Your task to perform on an android device: Go to Google Image 0: 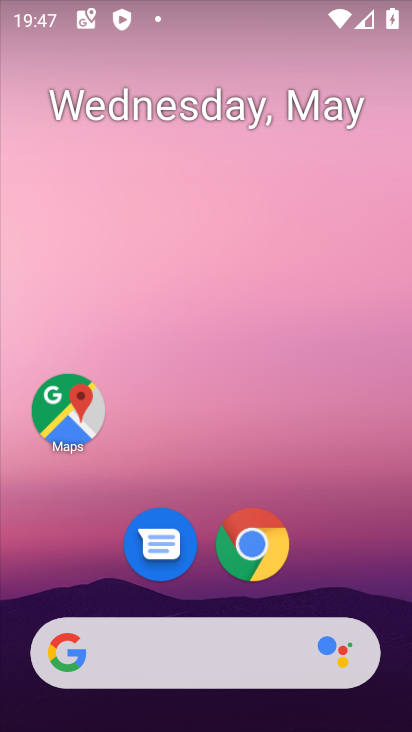
Step 0: click (173, 650)
Your task to perform on an android device: Go to Google Image 1: 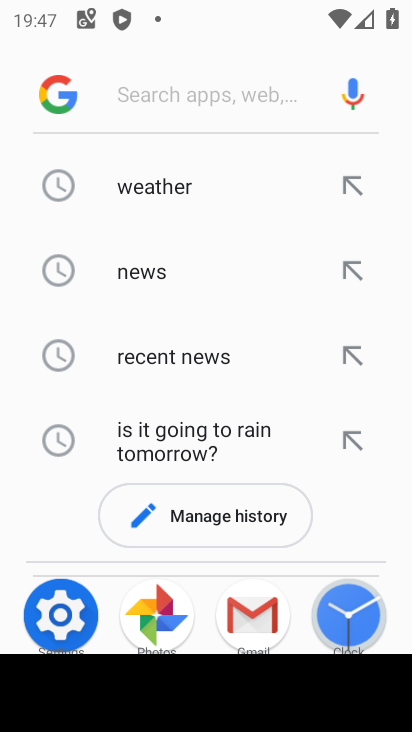
Step 1: task complete